Your task to perform on an android device: turn off wifi Image 0: 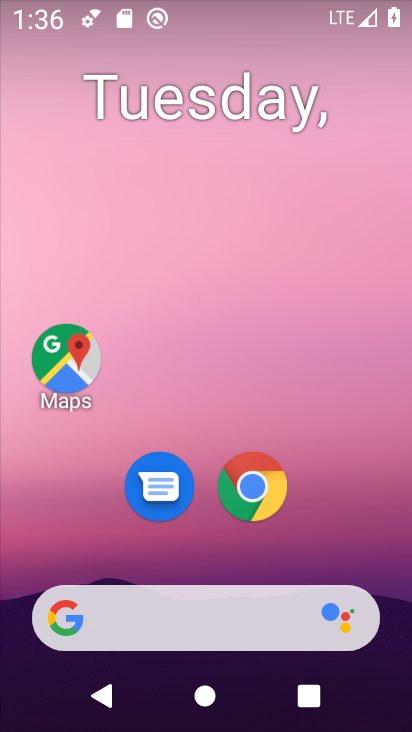
Step 0: press home button
Your task to perform on an android device: turn off wifi Image 1: 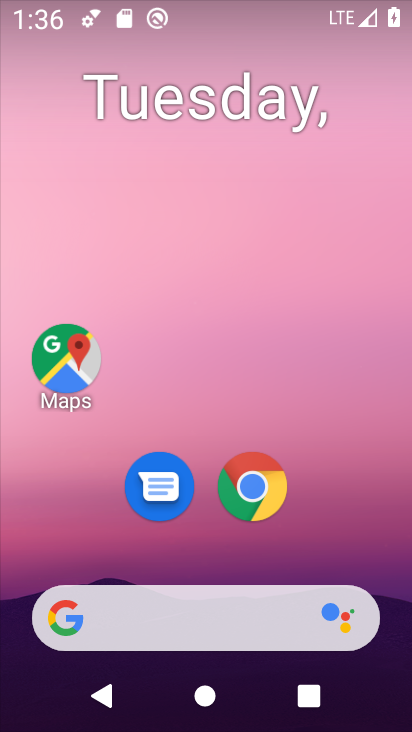
Step 1: drag from (359, 538) to (371, 65)
Your task to perform on an android device: turn off wifi Image 2: 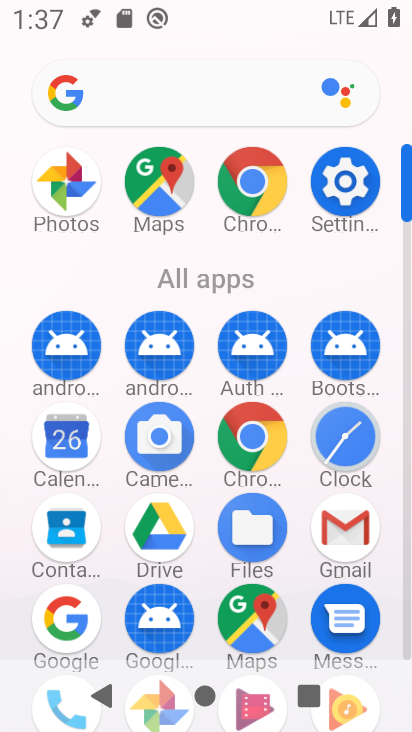
Step 2: click (340, 196)
Your task to perform on an android device: turn off wifi Image 3: 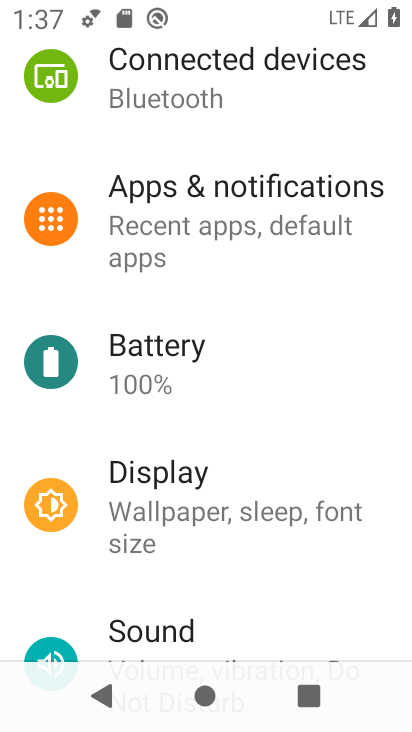
Step 3: drag from (342, 257) to (338, 382)
Your task to perform on an android device: turn off wifi Image 4: 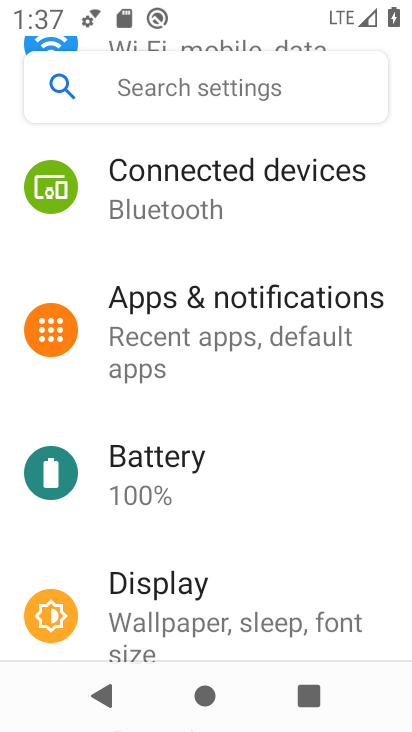
Step 4: drag from (337, 193) to (327, 340)
Your task to perform on an android device: turn off wifi Image 5: 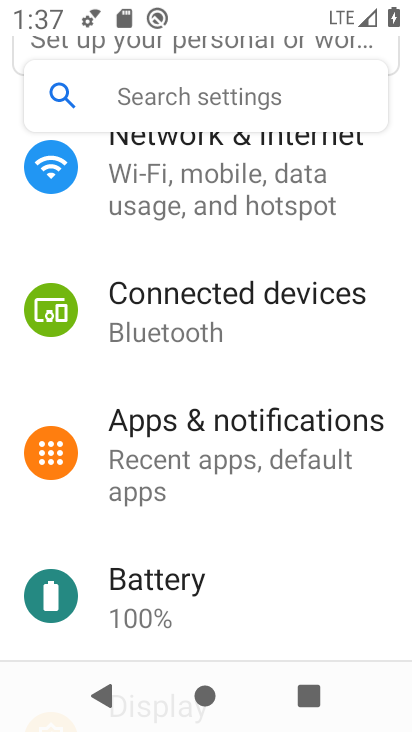
Step 5: drag from (359, 165) to (361, 416)
Your task to perform on an android device: turn off wifi Image 6: 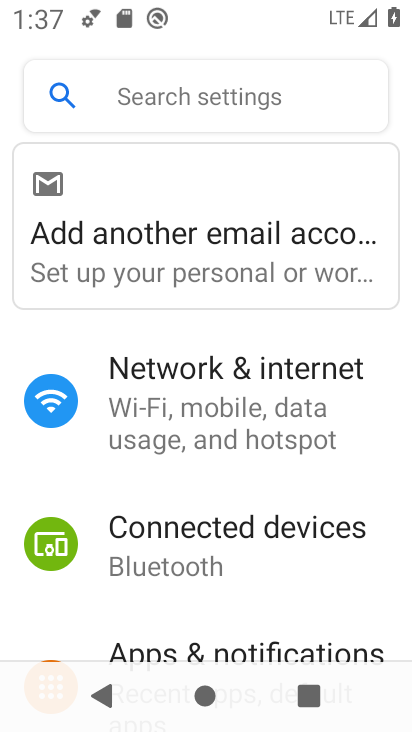
Step 6: drag from (360, 162) to (354, 390)
Your task to perform on an android device: turn off wifi Image 7: 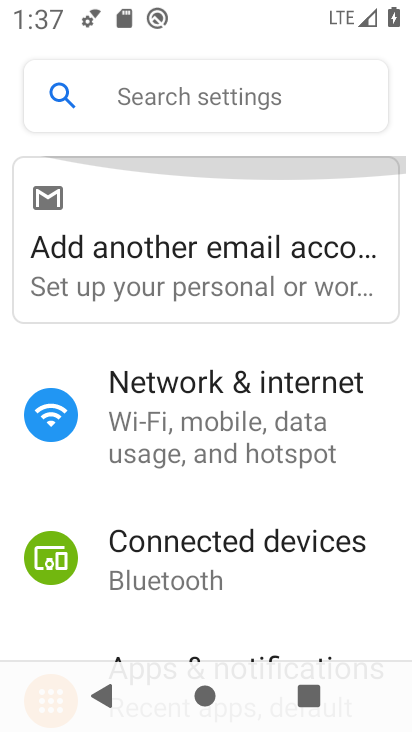
Step 7: drag from (357, 438) to (359, 352)
Your task to perform on an android device: turn off wifi Image 8: 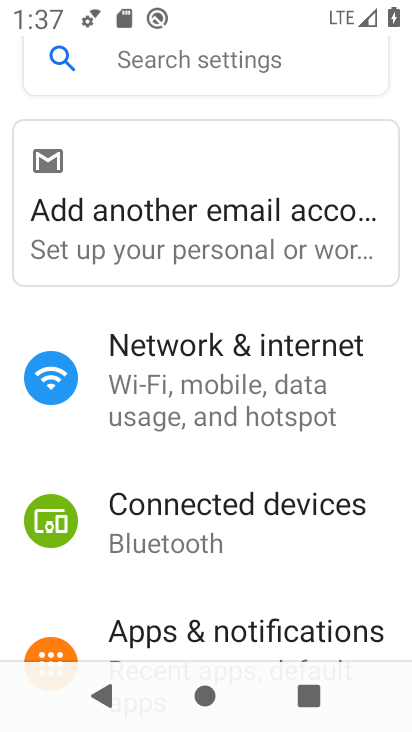
Step 8: drag from (316, 480) to (317, 336)
Your task to perform on an android device: turn off wifi Image 9: 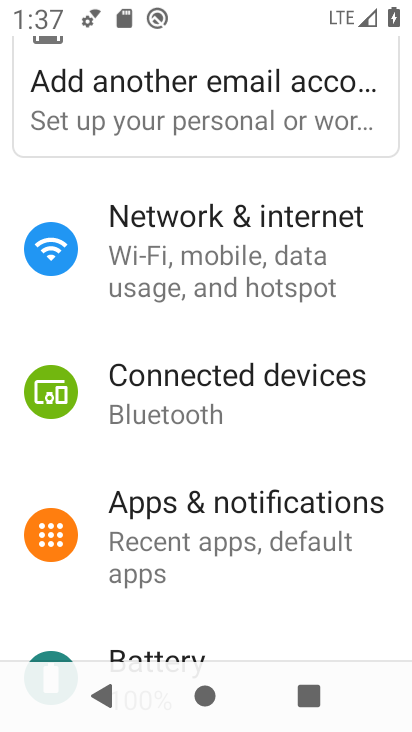
Step 9: drag from (303, 458) to (310, 367)
Your task to perform on an android device: turn off wifi Image 10: 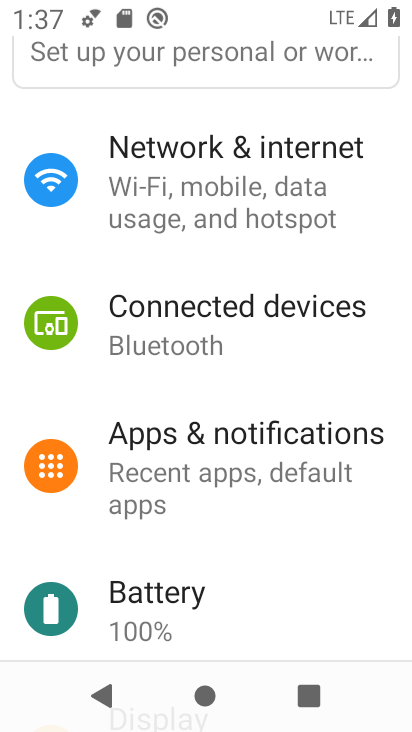
Step 10: click (236, 199)
Your task to perform on an android device: turn off wifi Image 11: 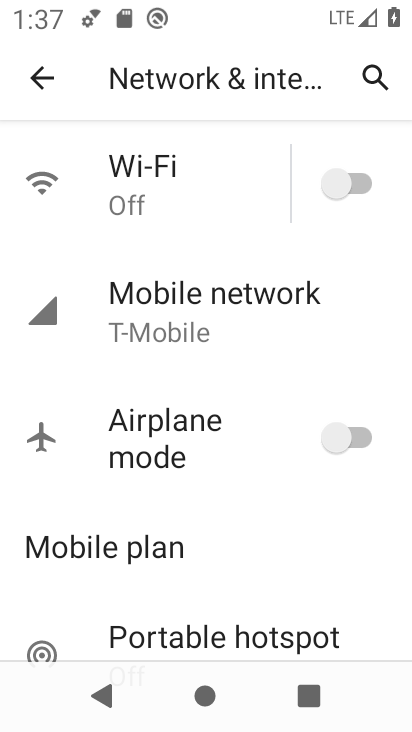
Step 11: task complete